Your task to perform on an android device: find snoozed emails in the gmail app Image 0: 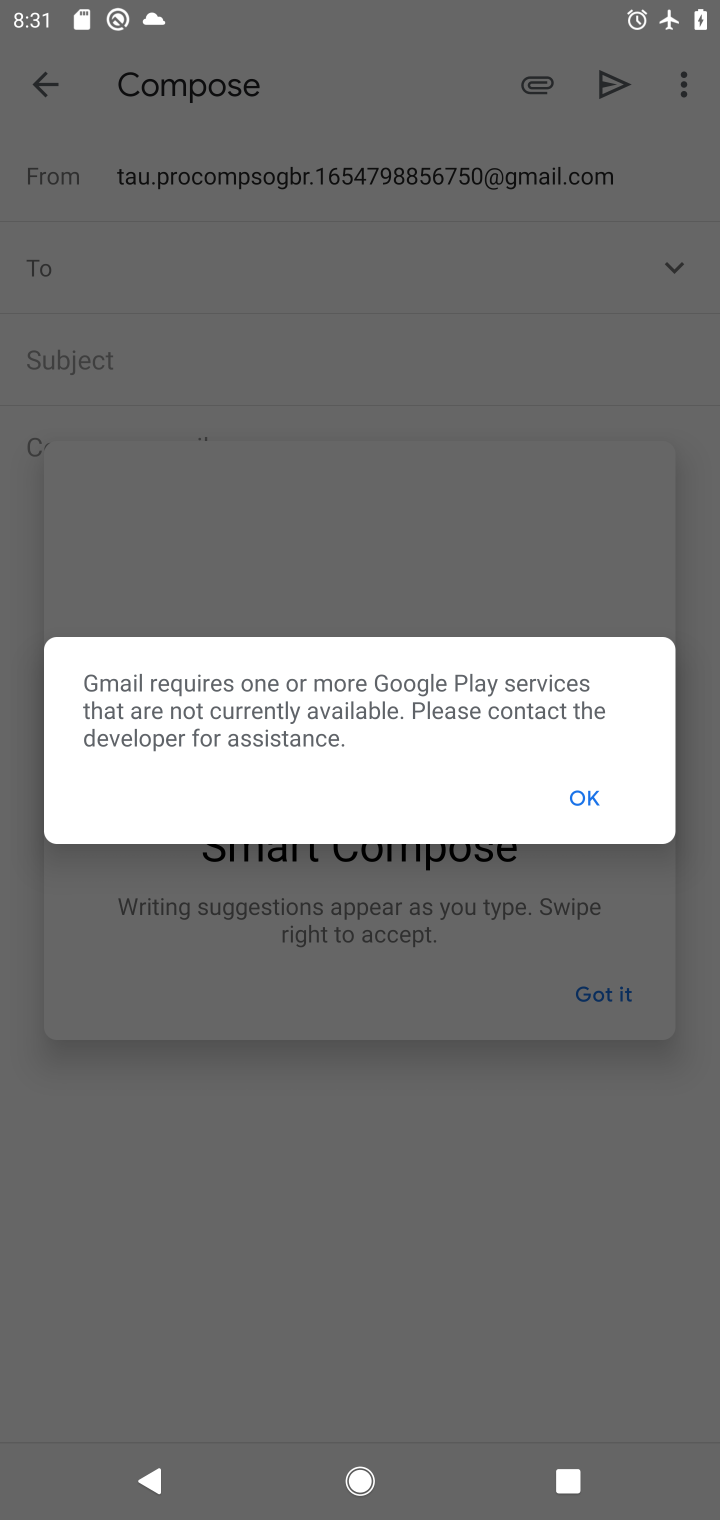
Step 0: press home button
Your task to perform on an android device: find snoozed emails in the gmail app Image 1: 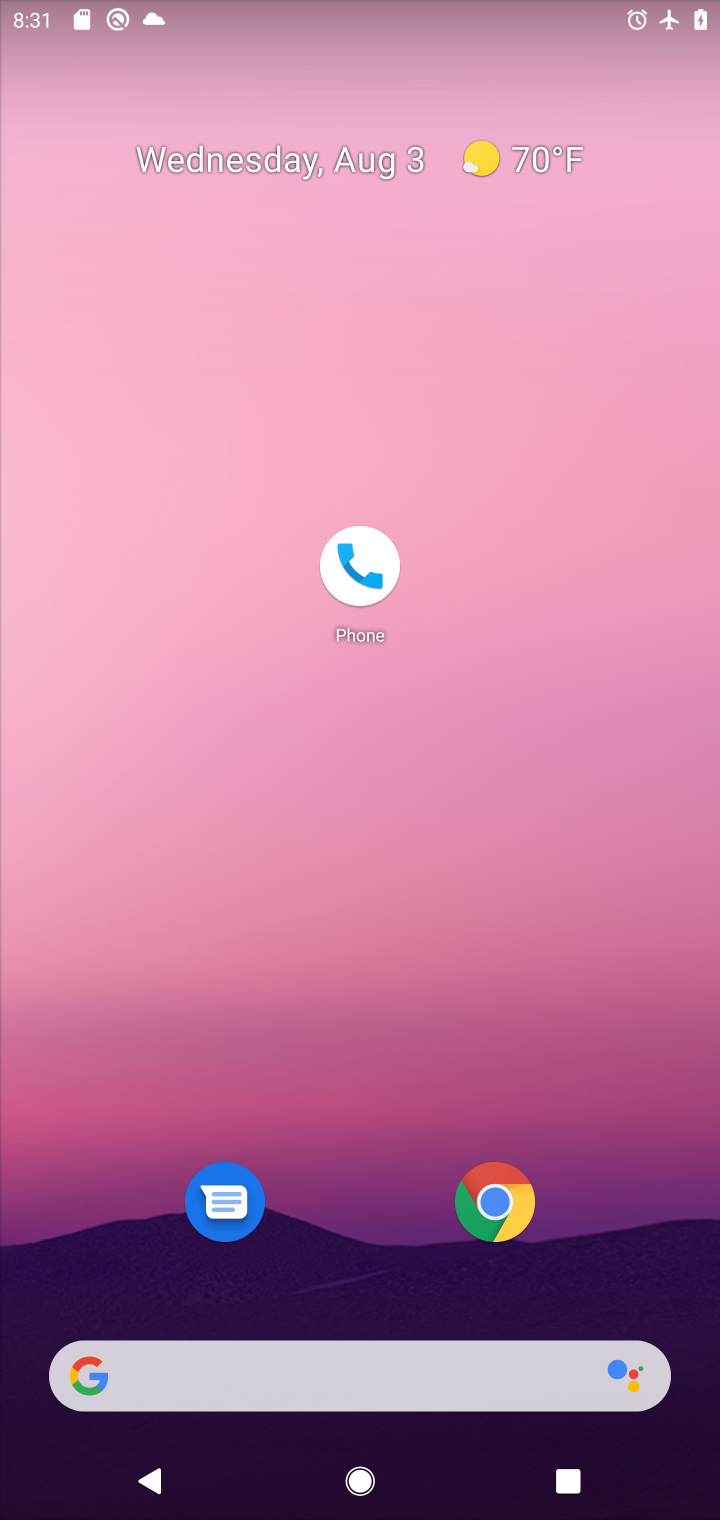
Step 1: drag from (327, 1385) to (495, 86)
Your task to perform on an android device: find snoozed emails in the gmail app Image 2: 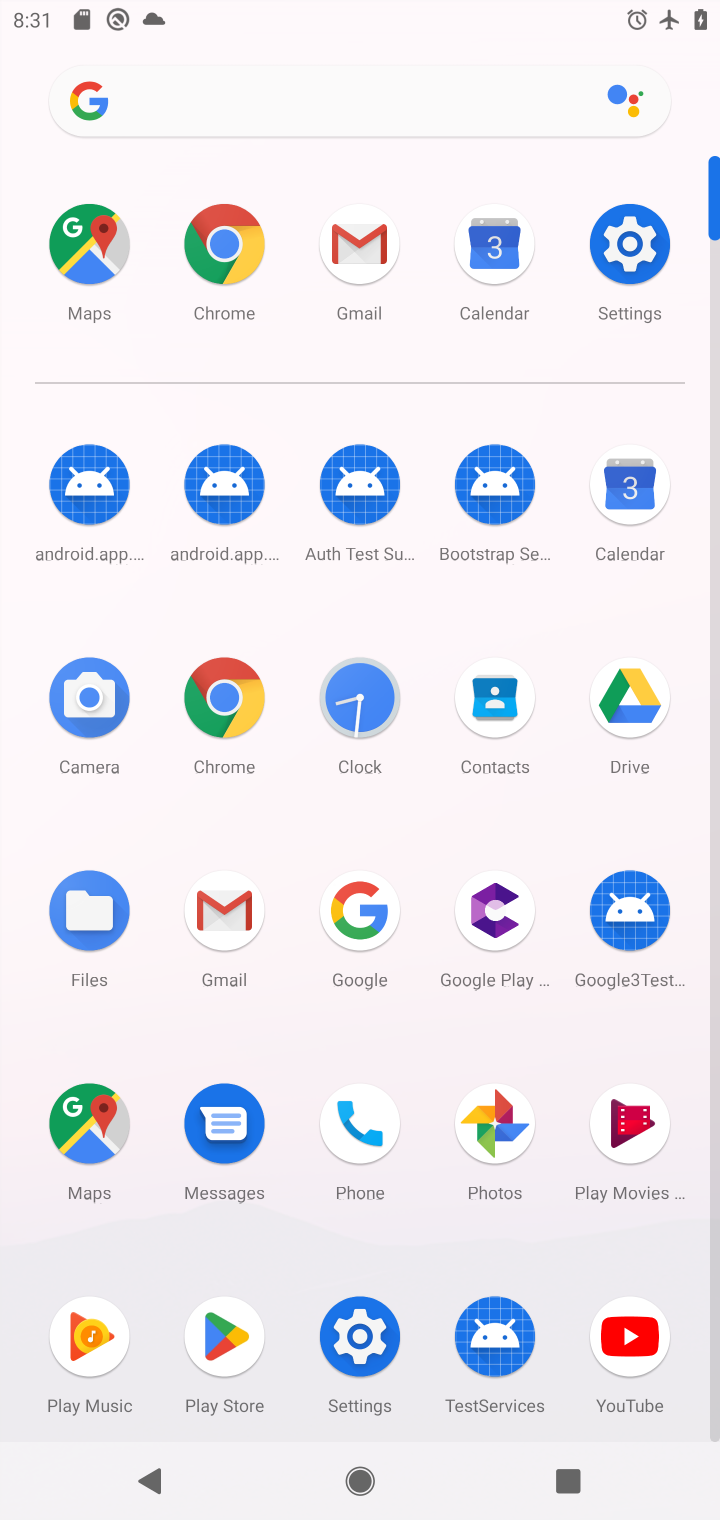
Step 2: click (359, 243)
Your task to perform on an android device: find snoozed emails in the gmail app Image 3: 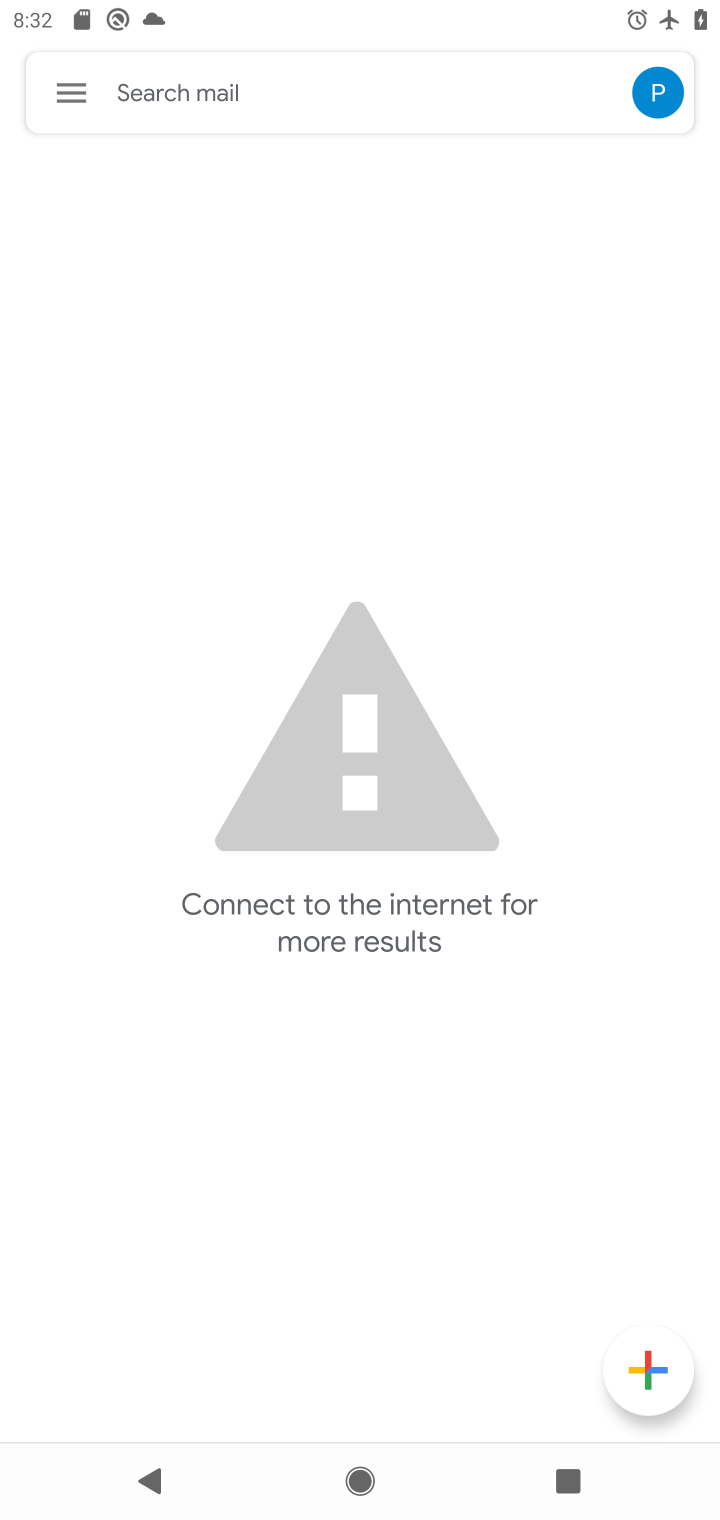
Step 3: click (76, 93)
Your task to perform on an android device: find snoozed emails in the gmail app Image 4: 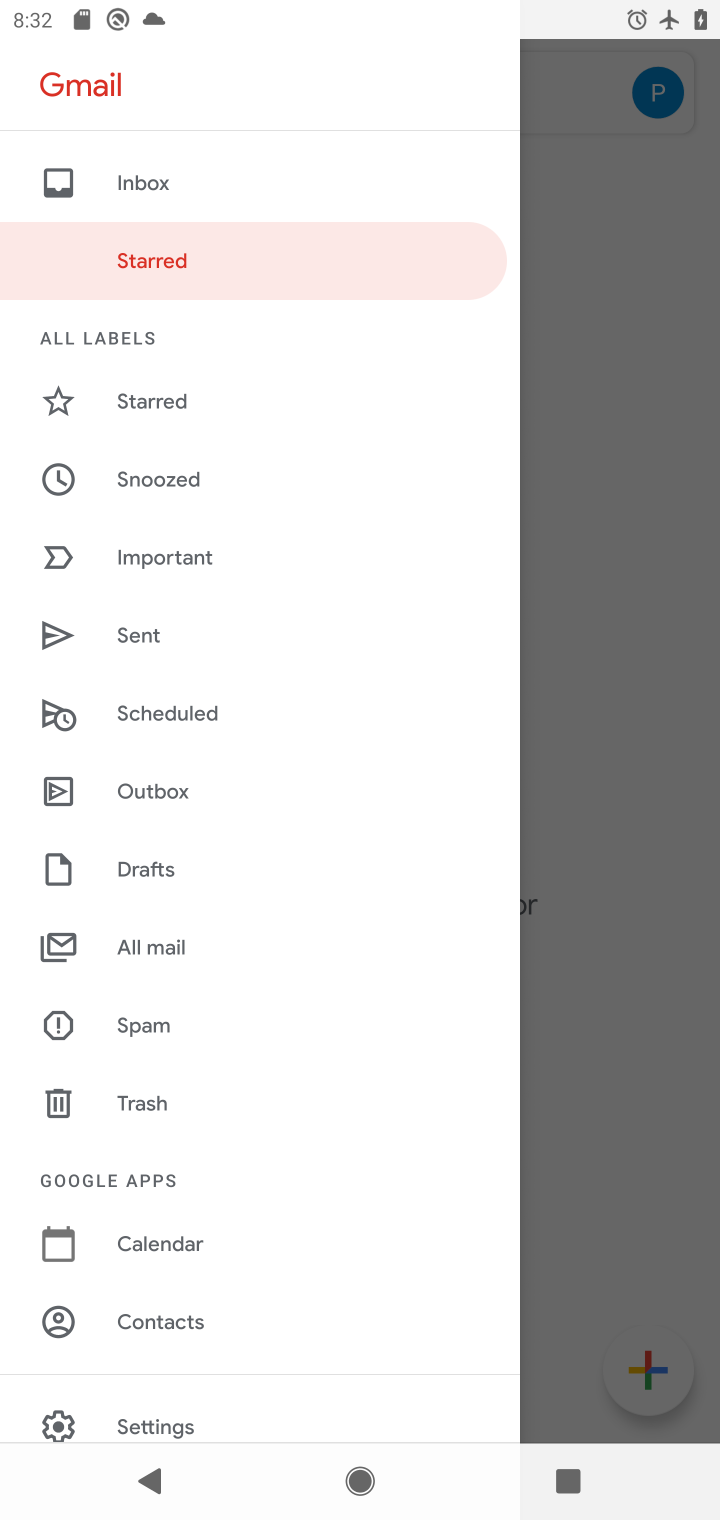
Step 4: click (176, 488)
Your task to perform on an android device: find snoozed emails in the gmail app Image 5: 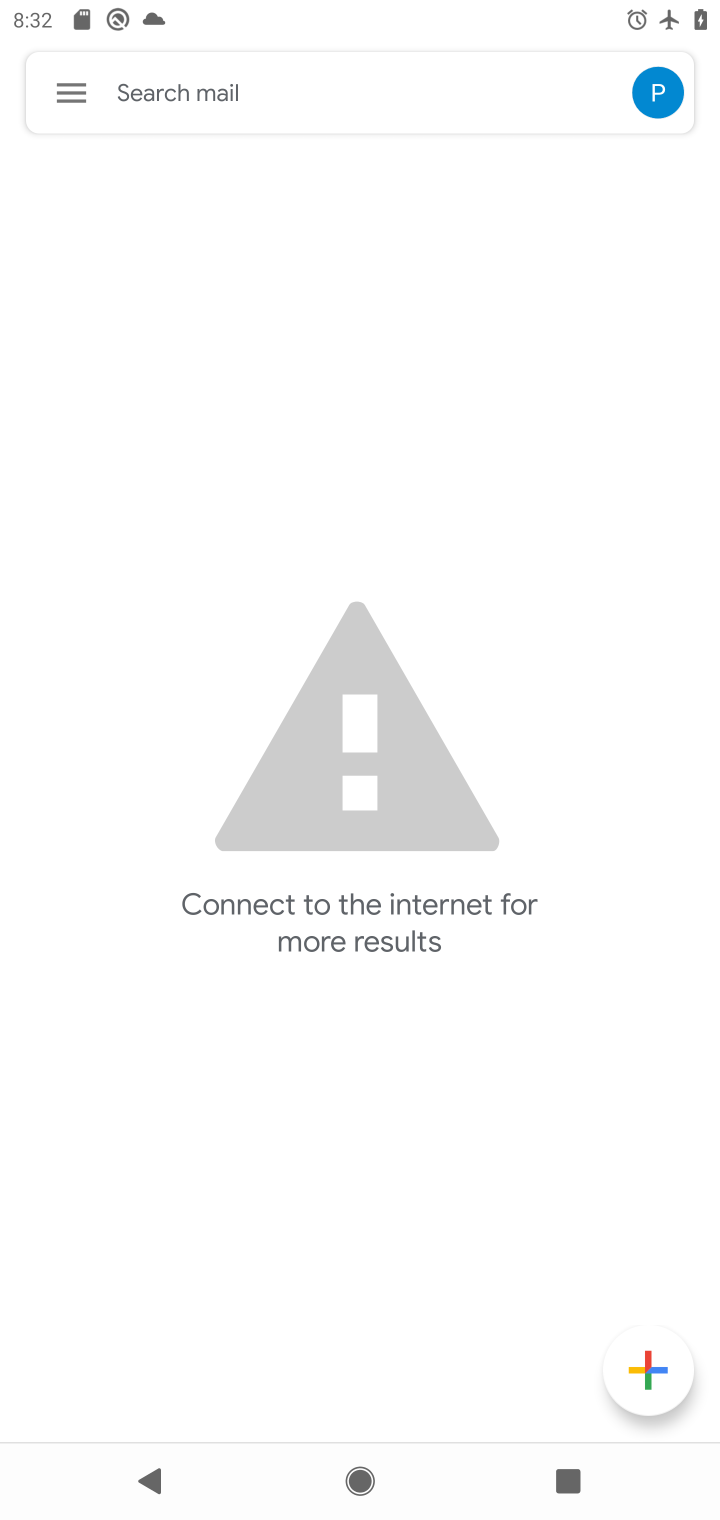
Step 5: press home button
Your task to perform on an android device: find snoozed emails in the gmail app Image 6: 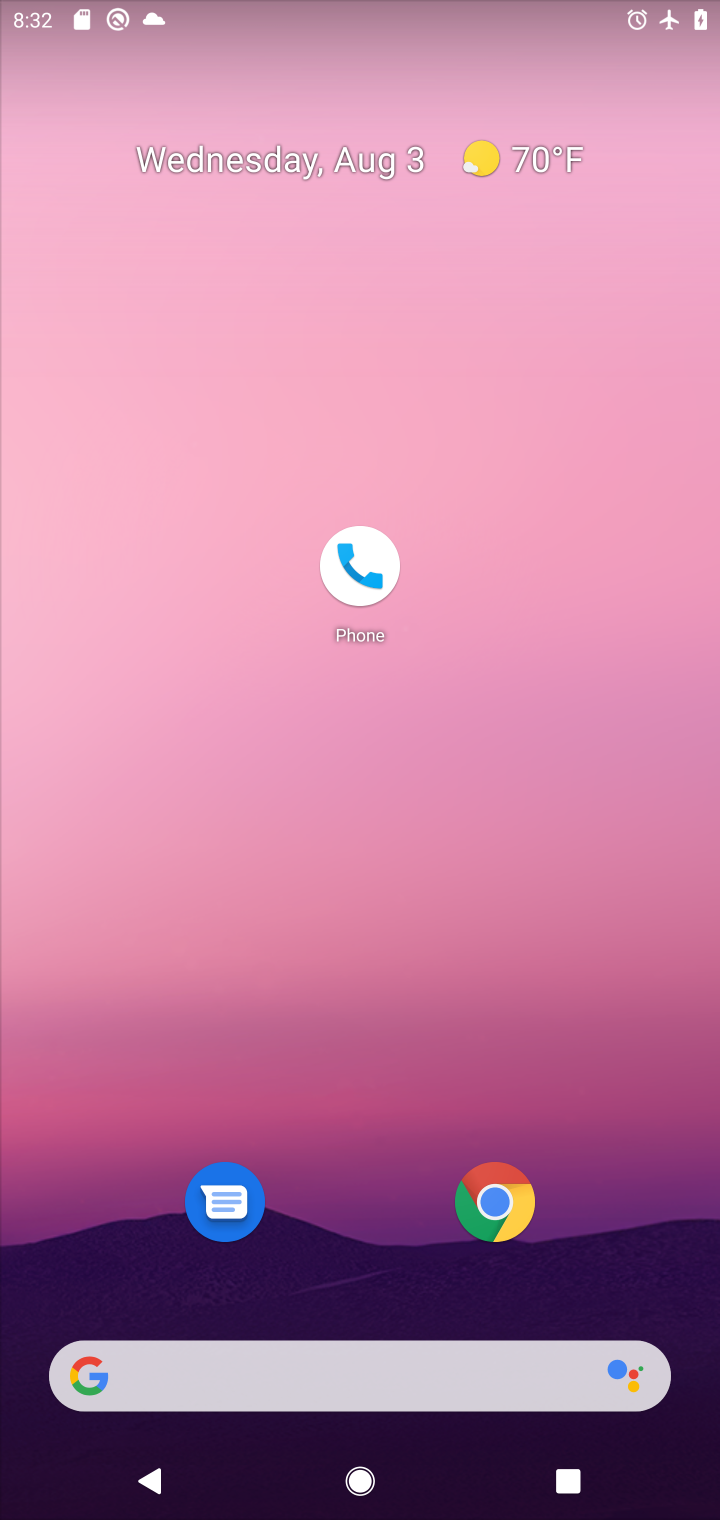
Step 6: drag from (325, 1346) to (293, 236)
Your task to perform on an android device: find snoozed emails in the gmail app Image 7: 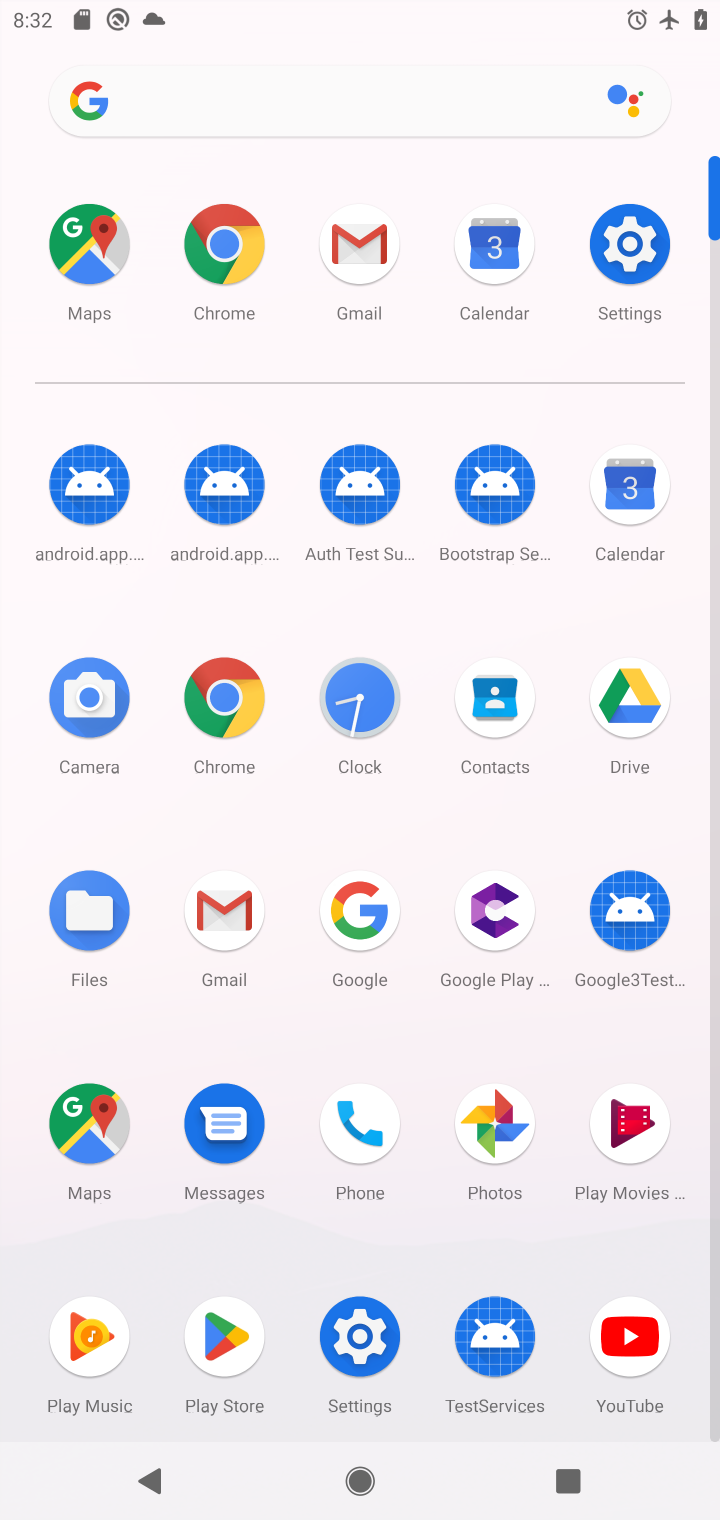
Step 7: click (628, 241)
Your task to perform on an android device: find snoozed emails in the gmail app Image 8: 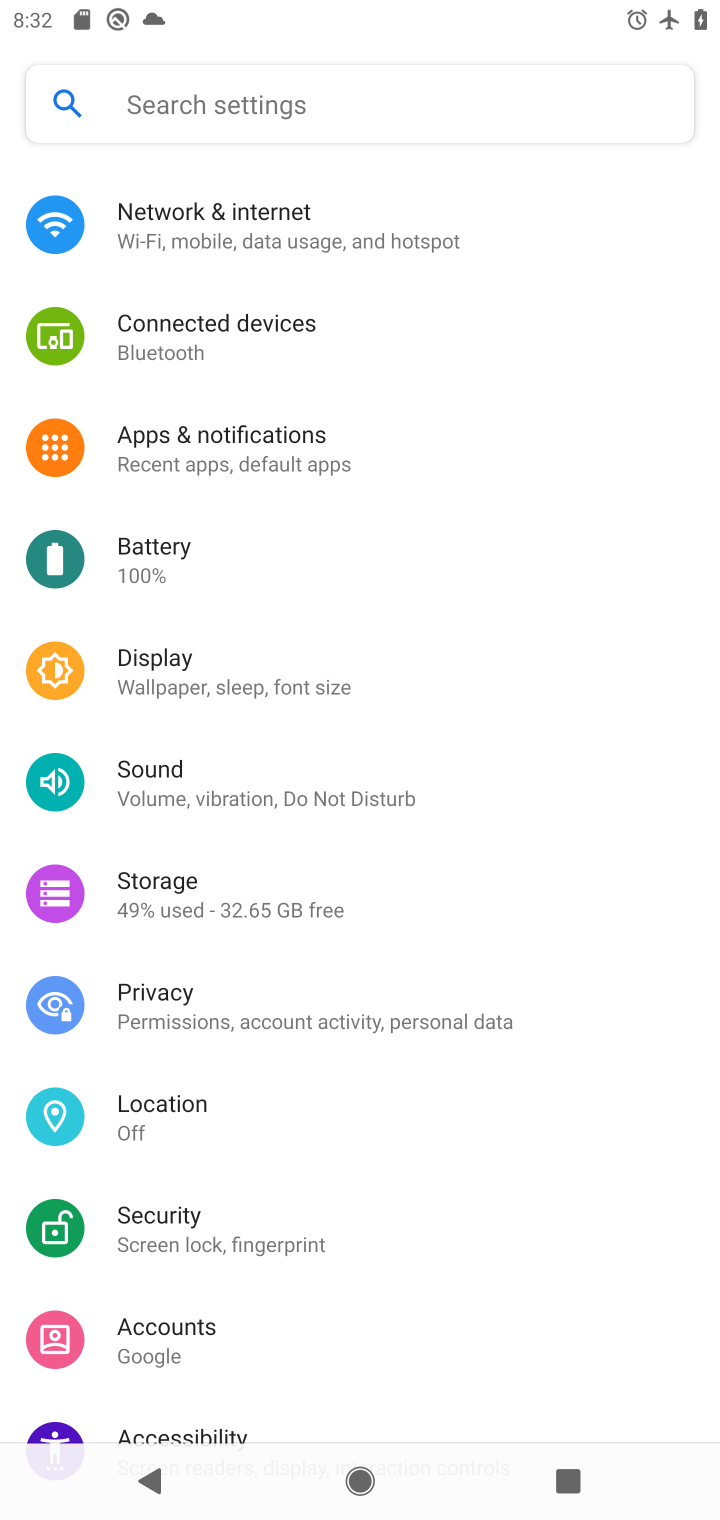
Step 8: click (418, 237)
Your task to perform on an android device: find snoozed emails in the gmail app Image 9: 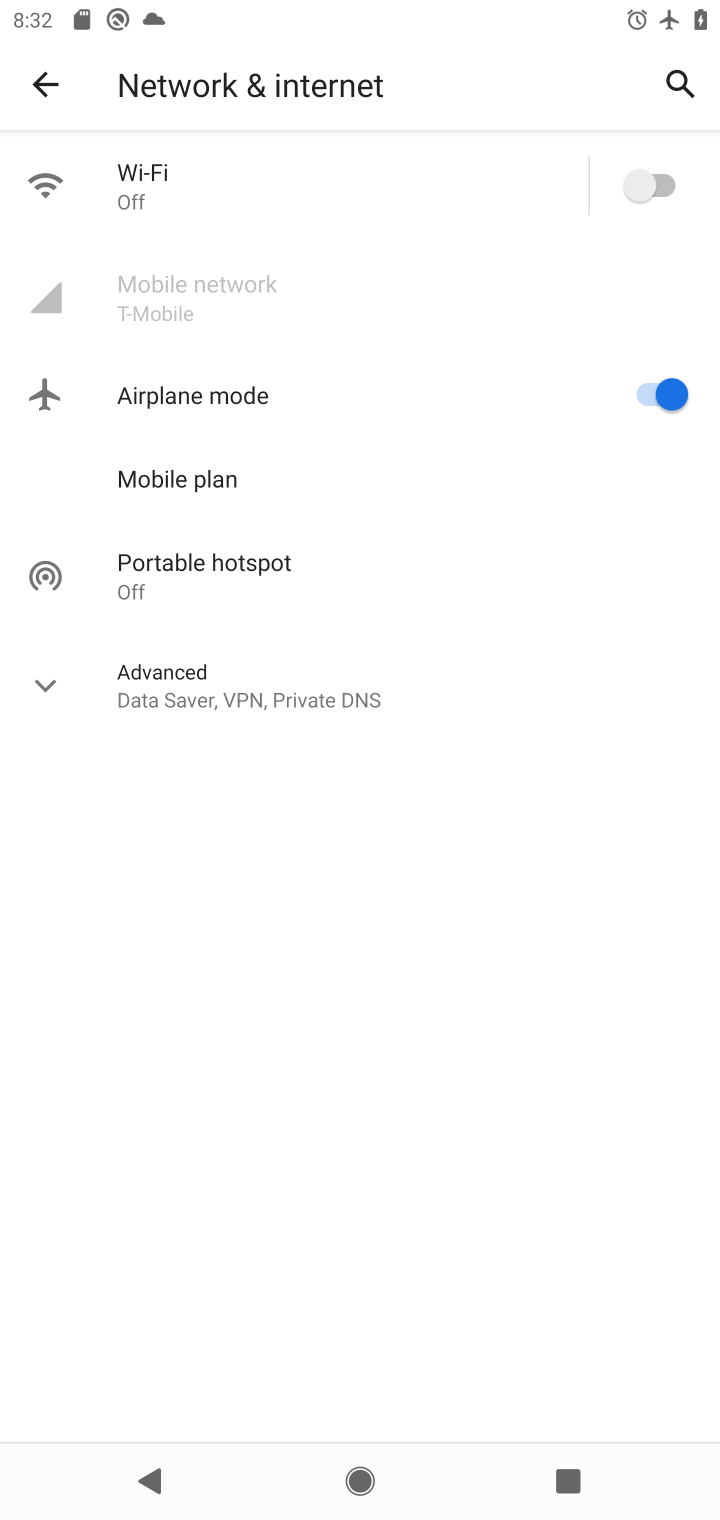
Step 9: click (651, 398)
Your task to perform on an android device: find snoozed emails in the gmail app Image 10: 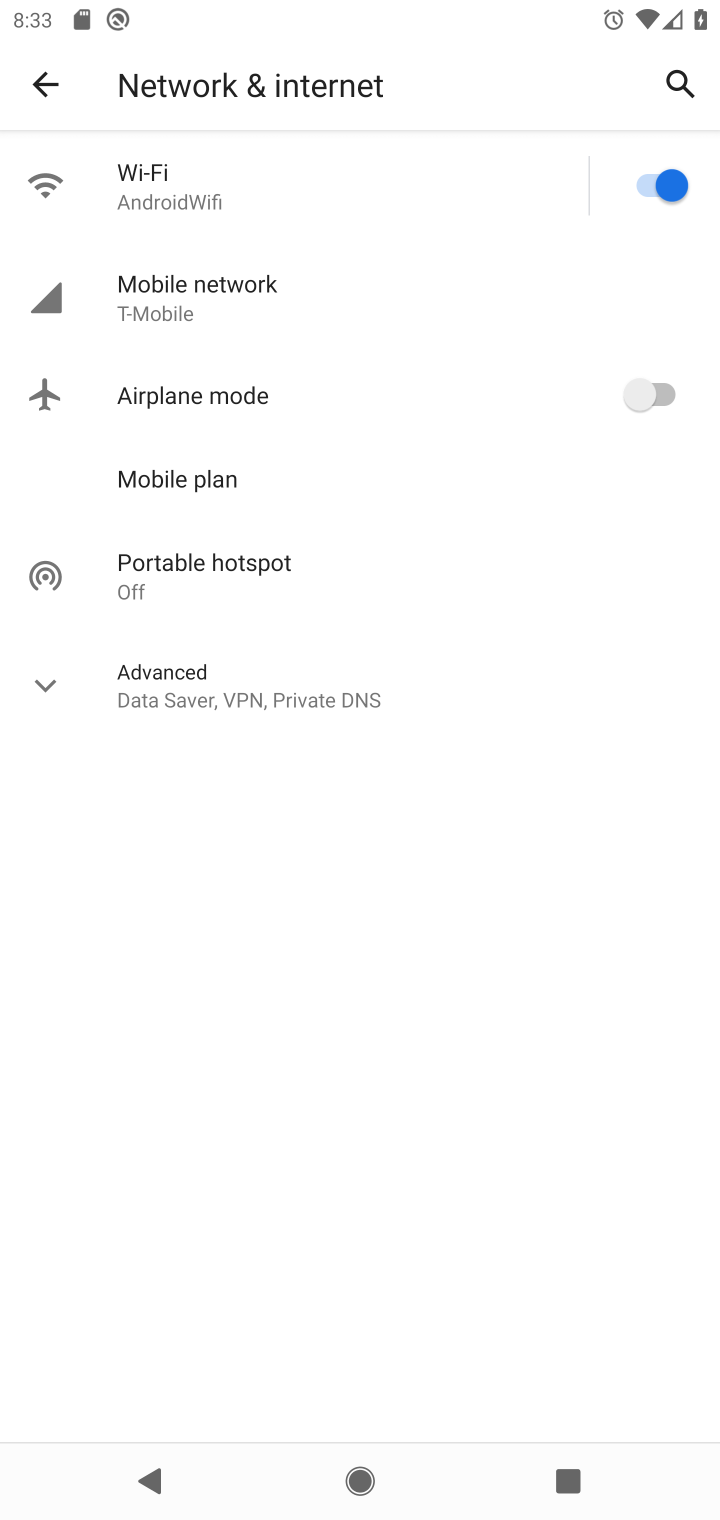
Step 10: press home button
Your task to perform on an android device: find snoozed emails in the gmail app Image 11: 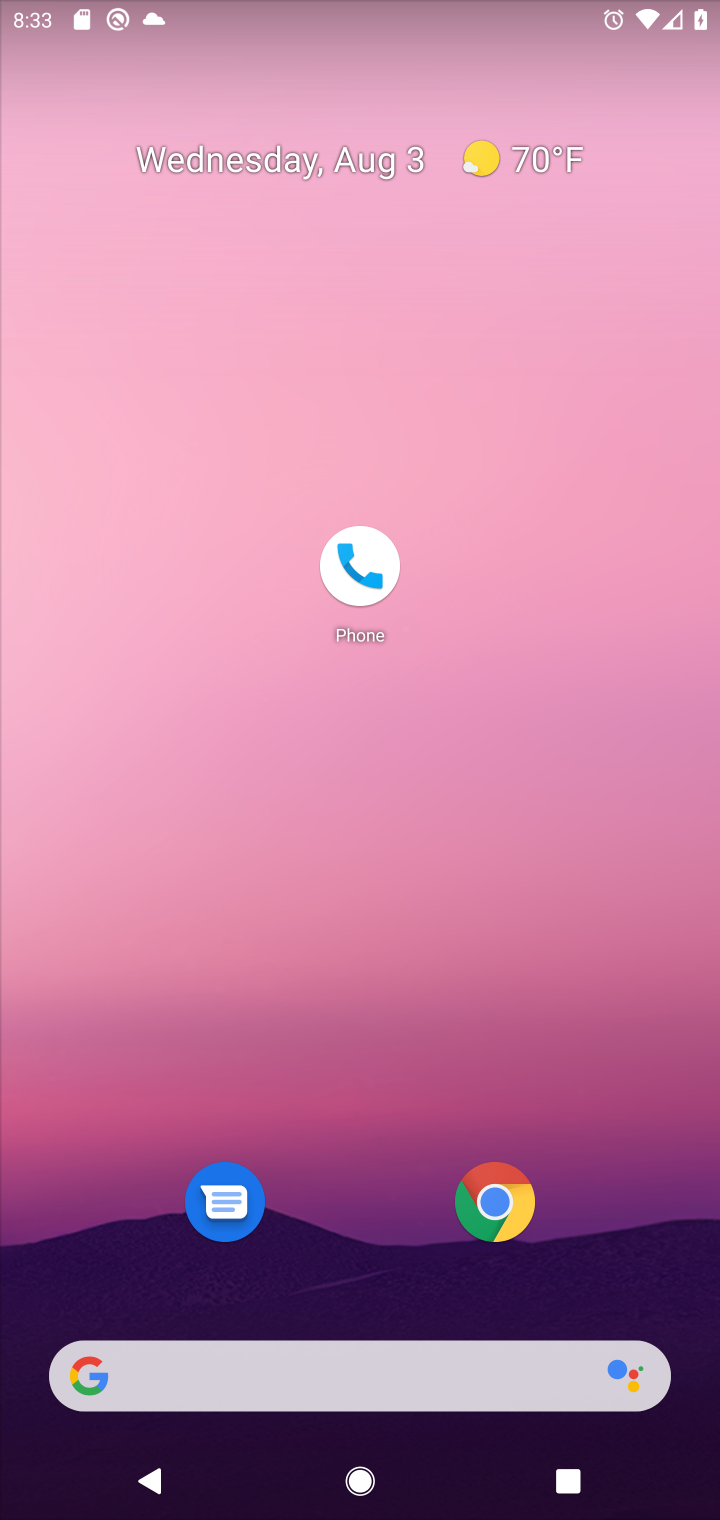
Step 11: drag from (284, 1394) to (411, 95)
Your task to perform on an android device: find snoozed emails in the gmail app Image 12: 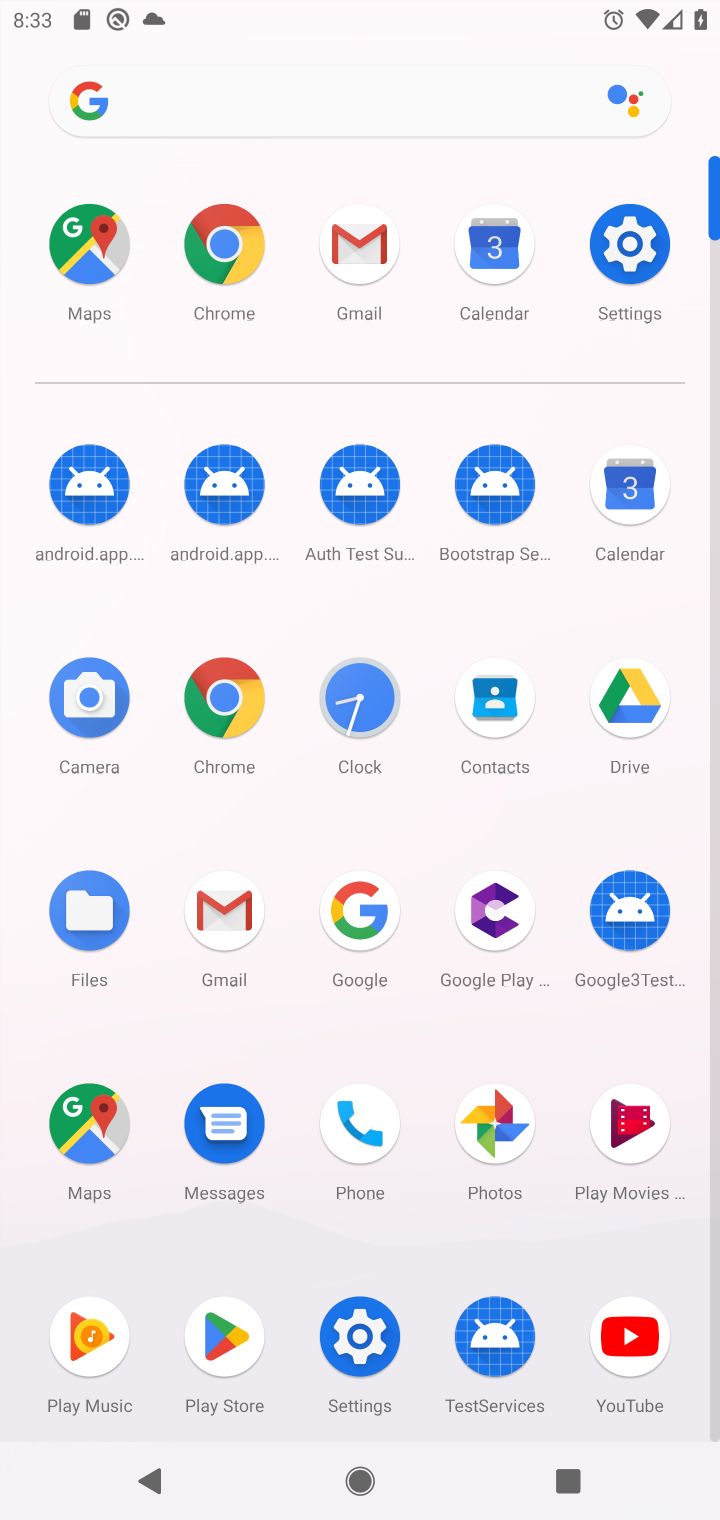
Step 12: click (226, 905)
Your task to perform on an android device: find snoozed emails in the gmail app Image 13: 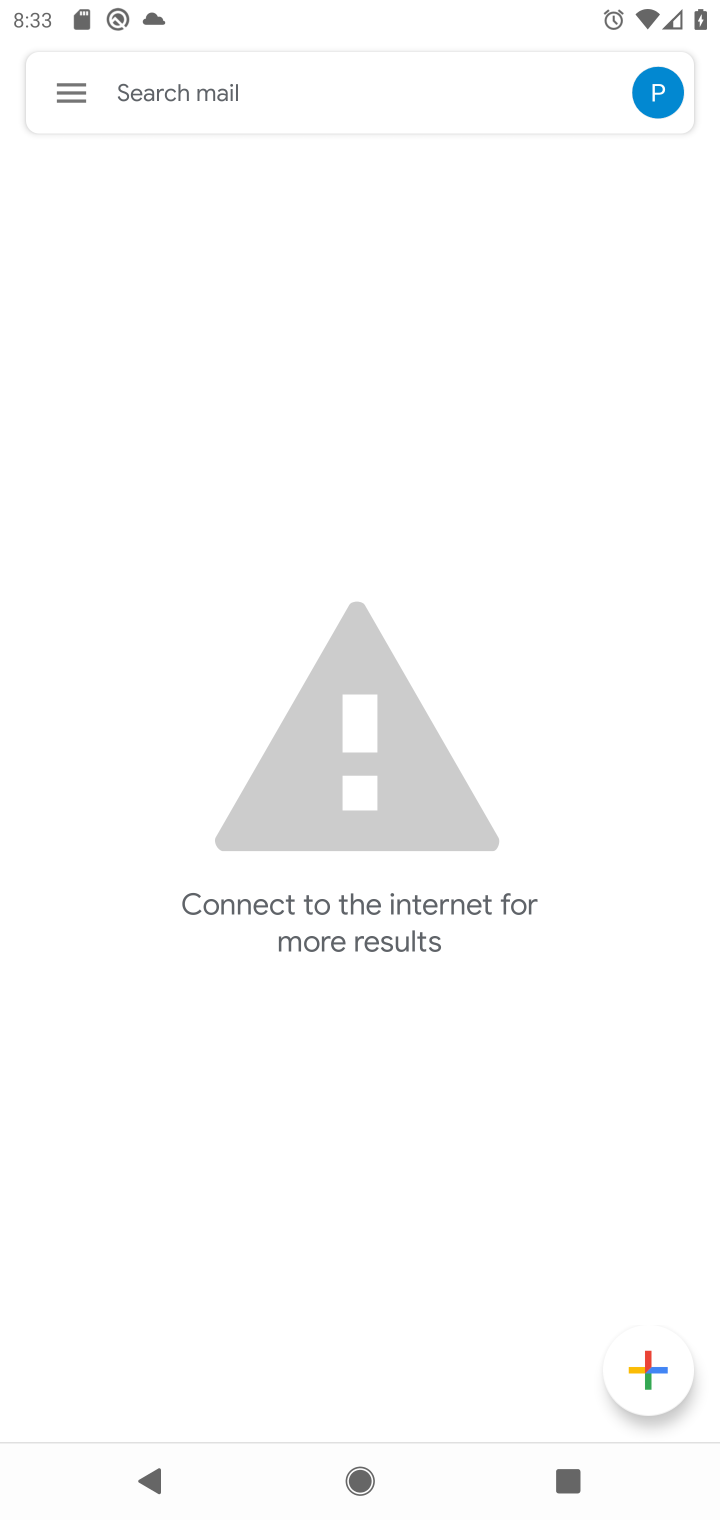
Step 13: click (62, 101)
Your task to perform on an android device: find snoozed emails in the gmail app Image 14: 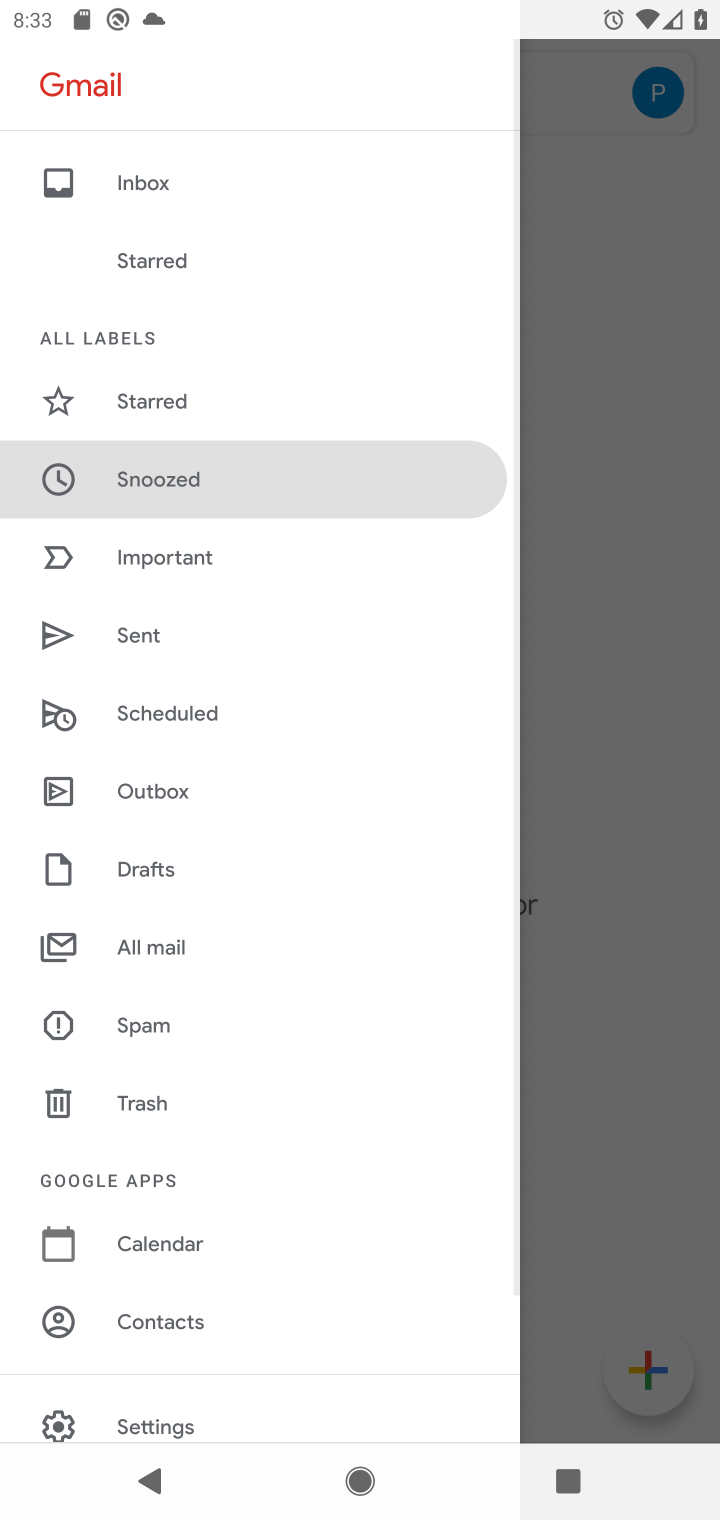
Step 14: click (195, 472)
Your task to perform on an android device: find snoozed emails in the gmail app Image 15: 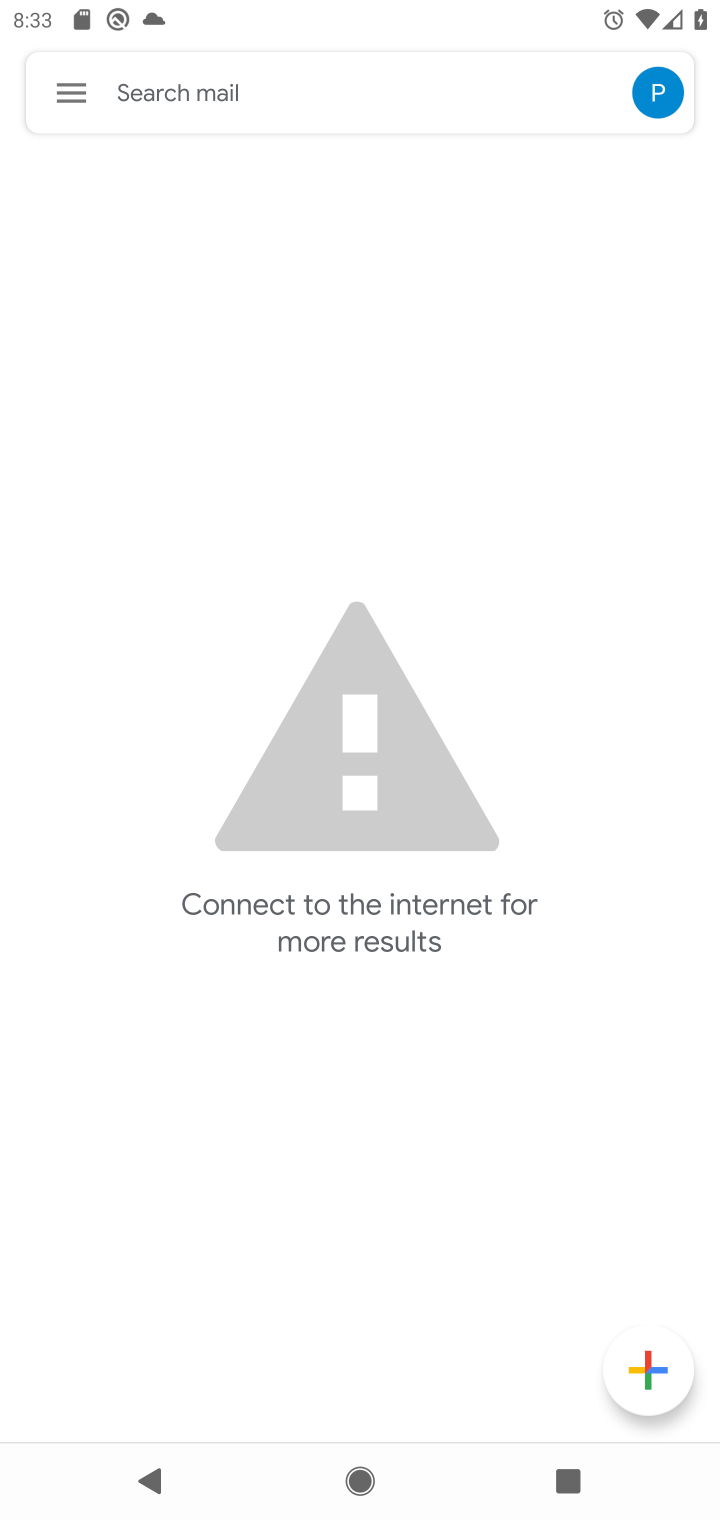
Step 15: click (62, 92)
Your task to perform on an android device: find snoozed emails in the gmail app Image 16: 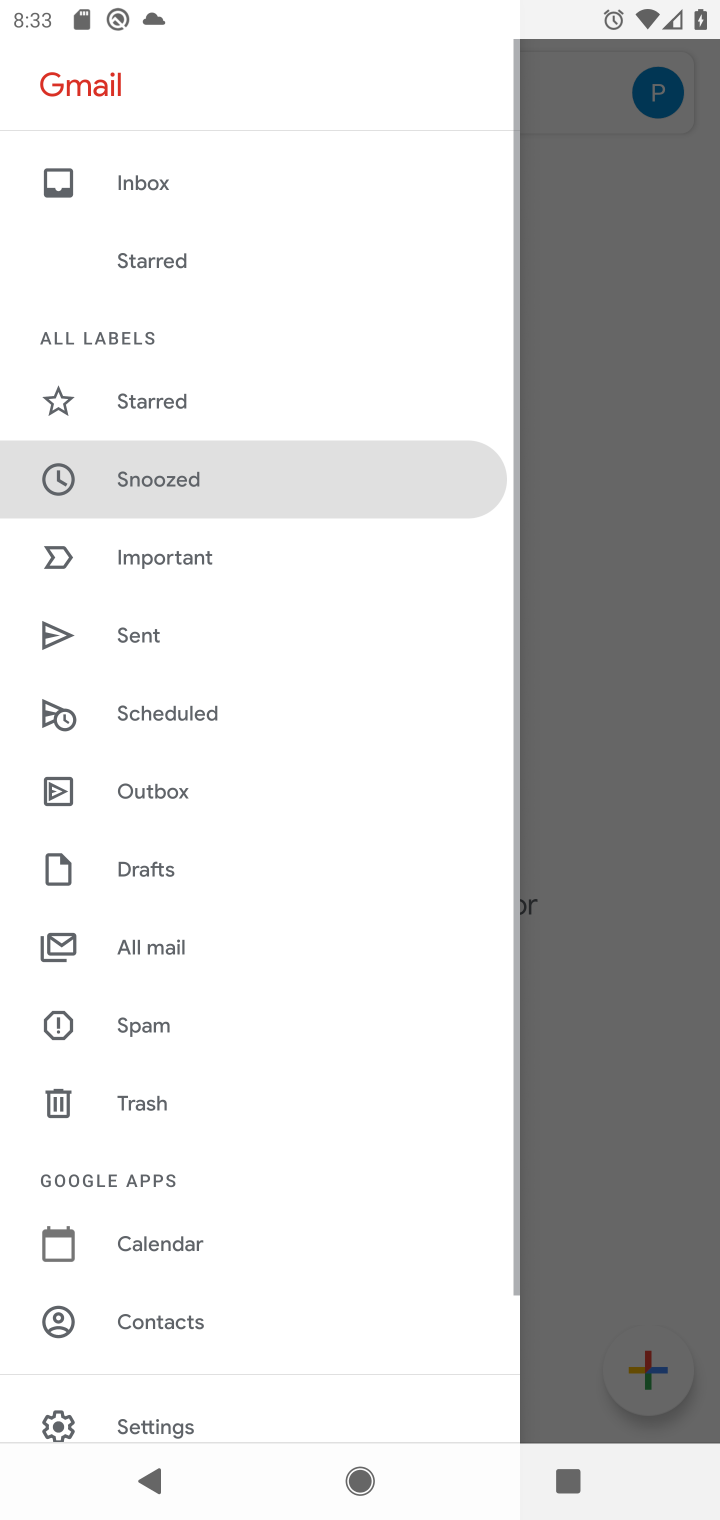
Step 16: click (113, 185)
Your task to perform on an android device: find snoozed emails in the gmail app Image 17: 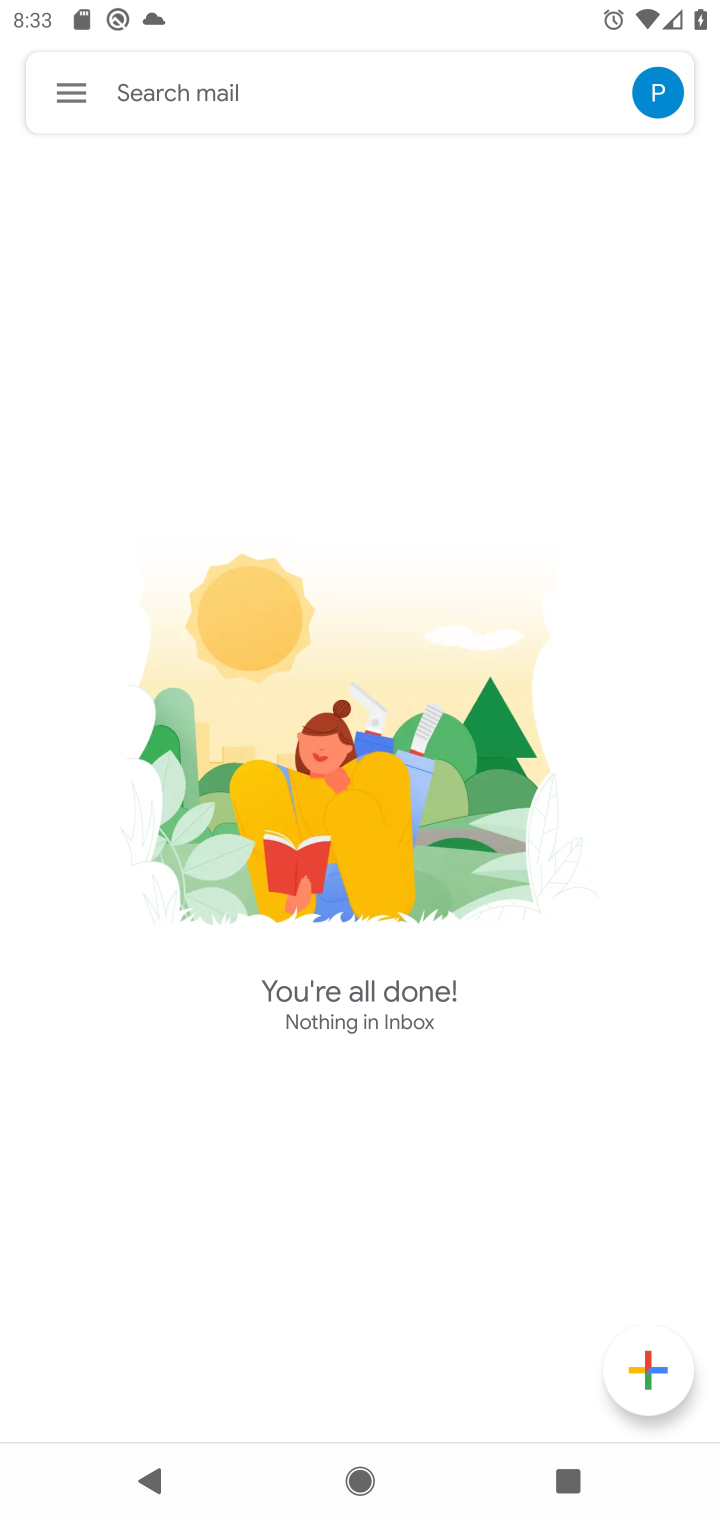
Step 17: click (67, 95)
Your task to perform on an android device: find snoozed emails in the gmail app Image 18: 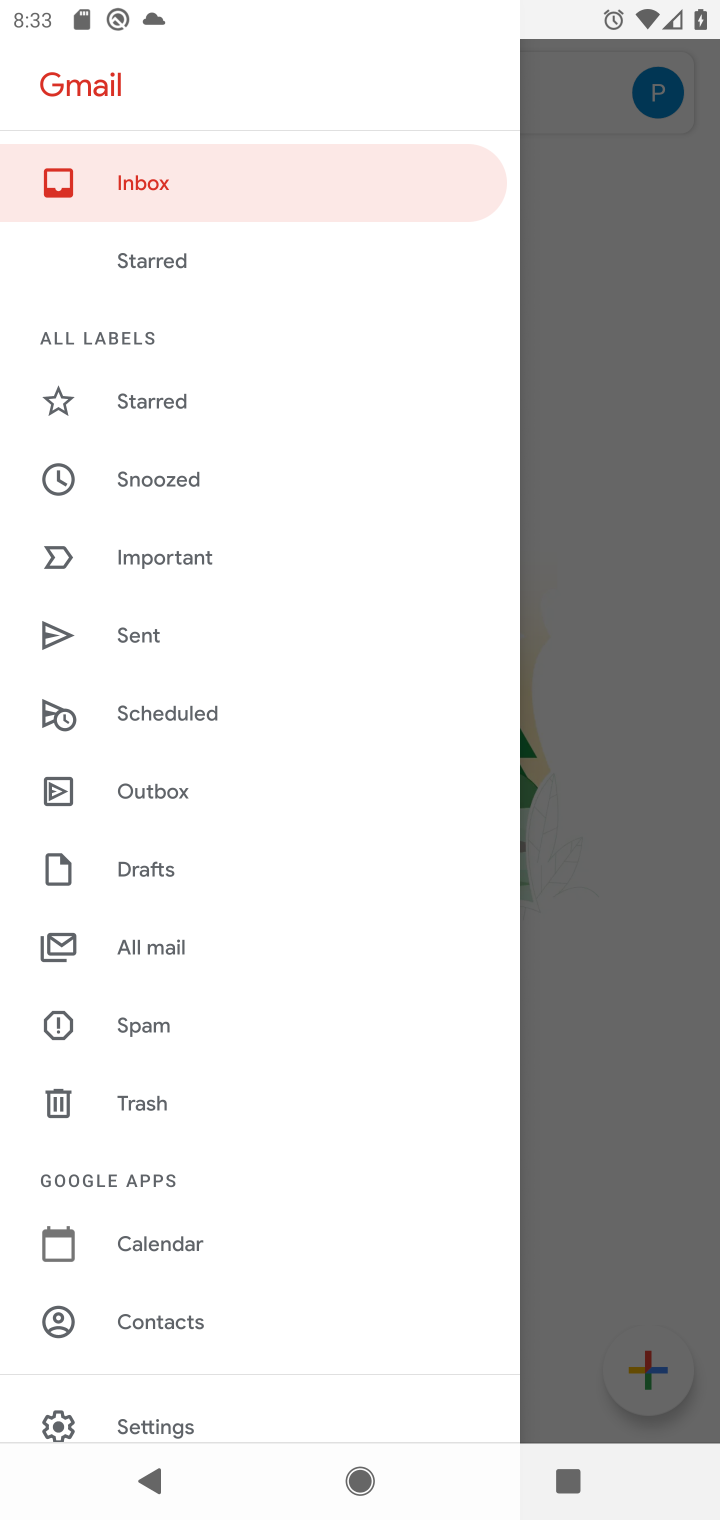
Step 18: click (178, 491)
Your task to perform on an android device: find snoozed emails in the gmail app Image 19: 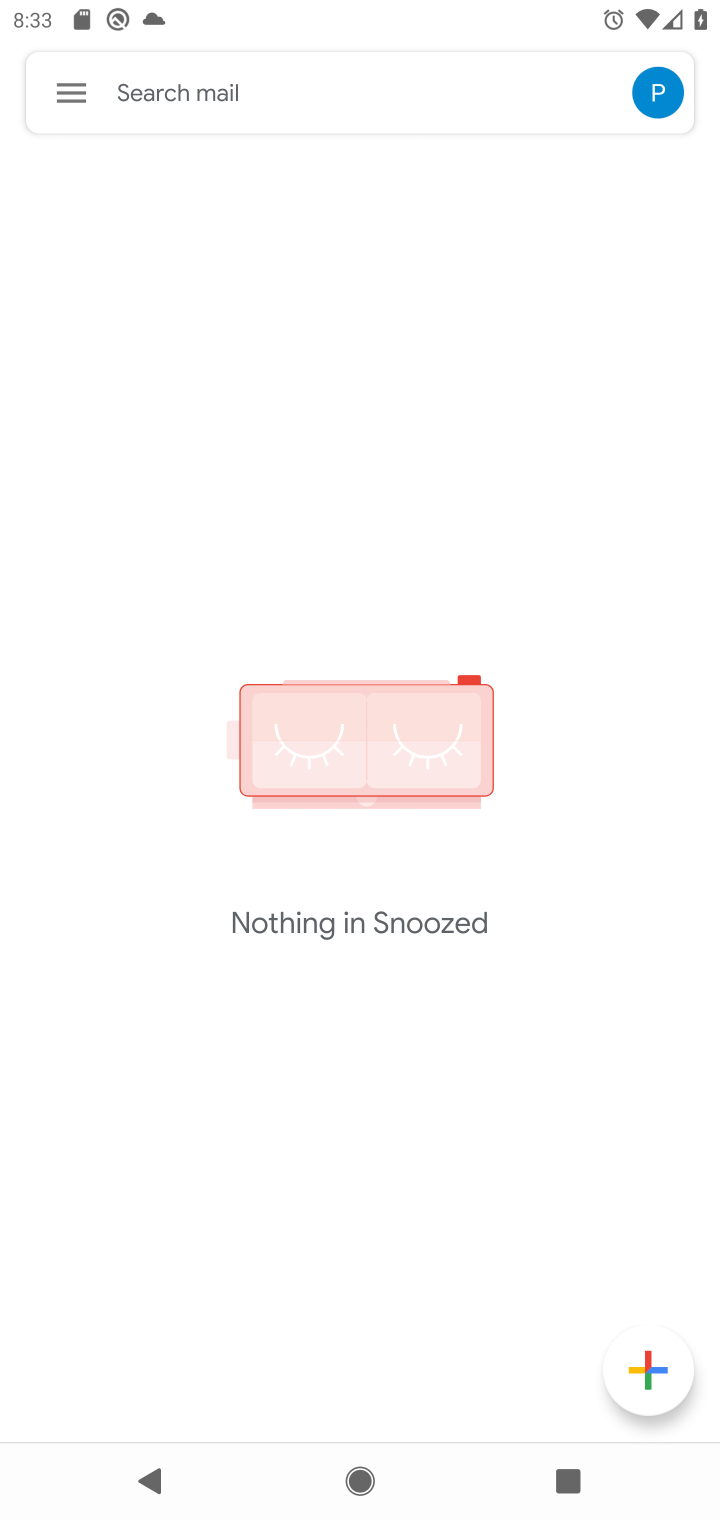
Step 19: task complete